Your task to perform on an android device: search for starred emails in the gmail app Image 0: 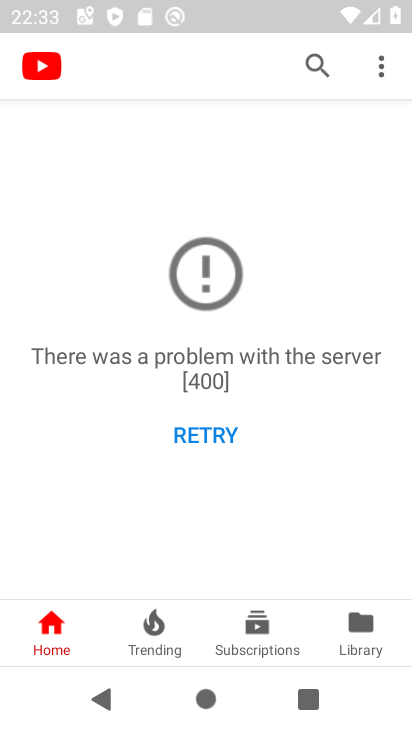
Step 0: press home button
Your task to perform on an android device: search for starred emails in the gmail app Image 1: 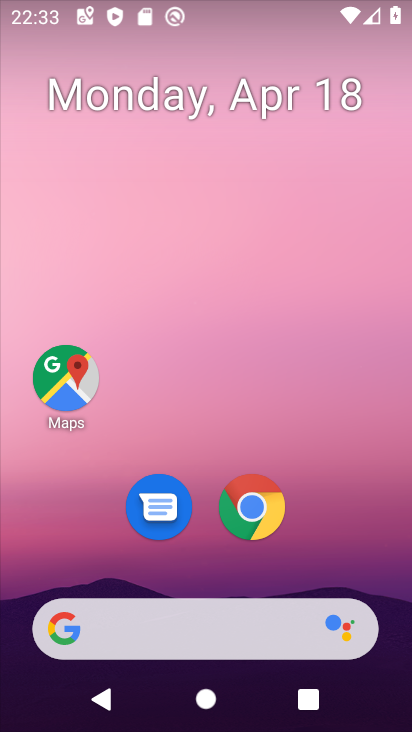
Step 1: drag from (361, 468) to (328, 98)
Your task to perform on an android device: search for starred emails in the gmail app Image 2: 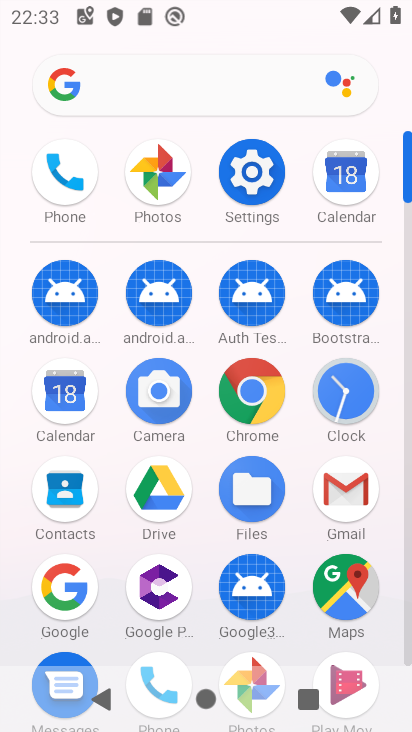
Step 2: click (340, 481)
Your task to perform on an android device: search for starred emails in the gmail app Image 3: 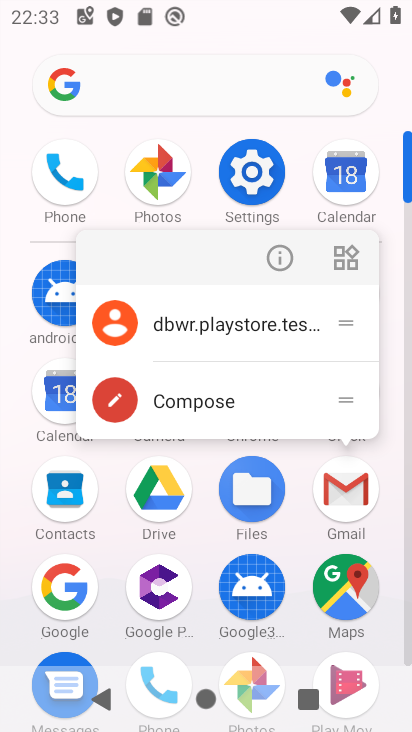
Step 3: click (350, 483)
Your task to perform on an android device: search for starred emails in the gmail app Image 4: 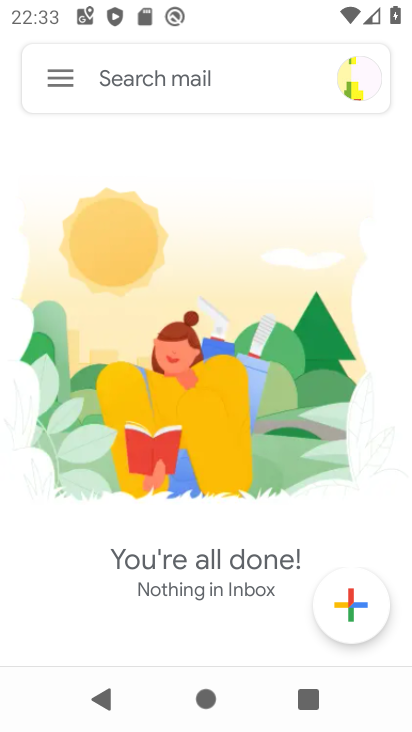
Step 4: click (63, 74)
Your task to perform on an android device: search for starred emails in the gmail app Image 5: 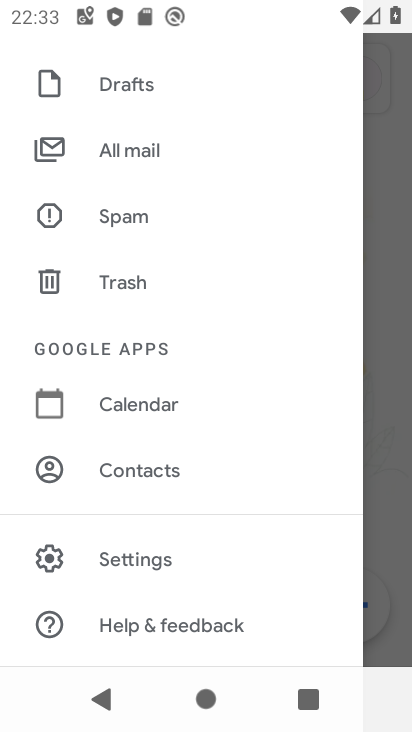
Step 5: drag from (217, 561) to (204, 308)
Your task to perform on an android device: search for starred emails in the gmail app Image 6: 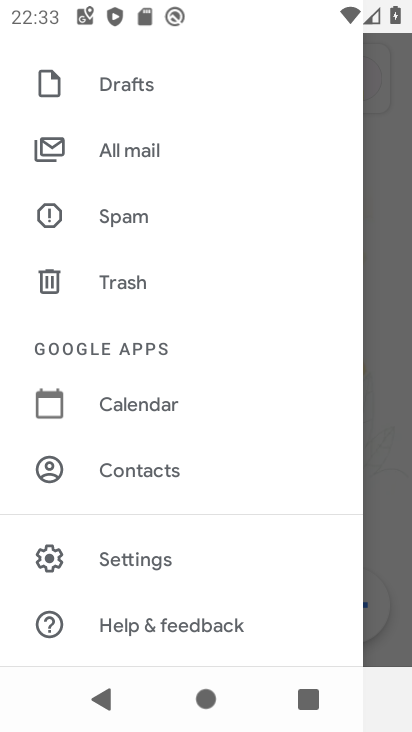
Step 6: drag from (209, 179) to (248, 502)
Your task to perform on an android device: search for starred emails in the gmail app Image 7: 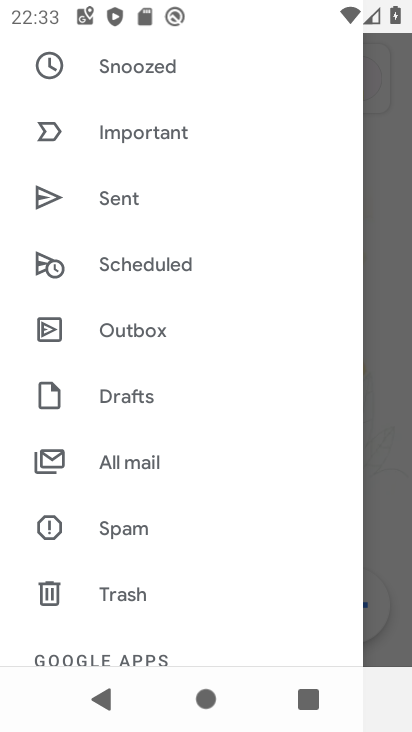
Step 7: drag from (212, 187) to (212, 577)
Your task to perform on an android device: search for starred emails in the gmail app Image 8: 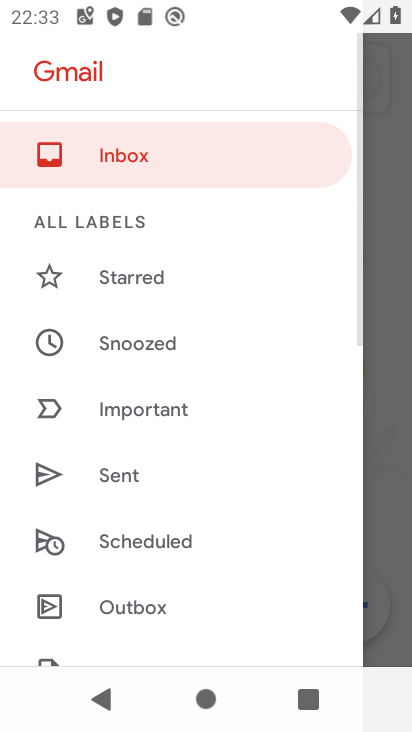
Step 8: click (206, 276)
Your task to perform on an android device: search for starred emails in the gmail app Image 9: 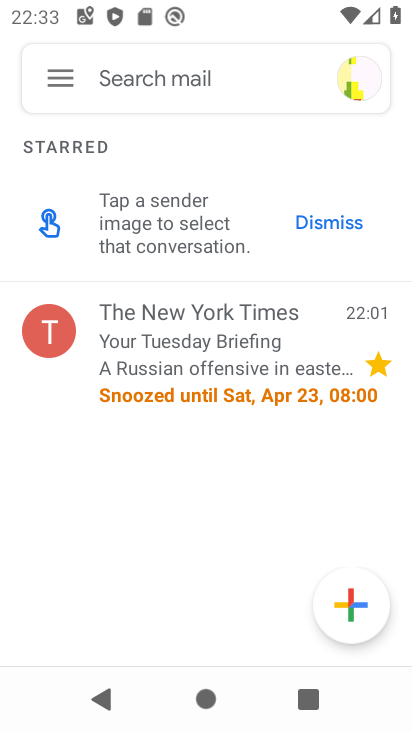
Step 9: task complete